Your task to perform on an android device: Go to privacy settings Image 0: 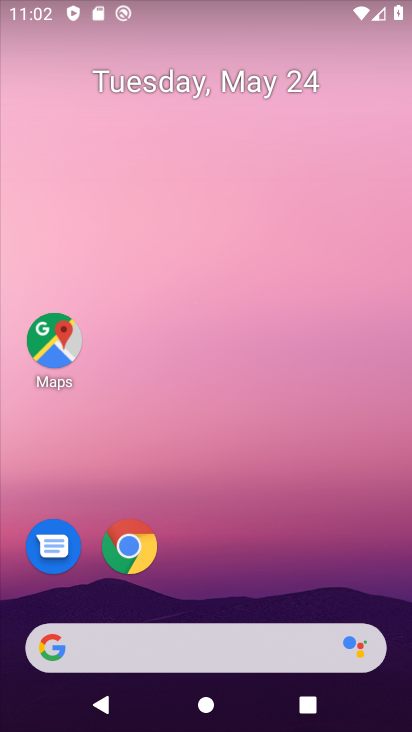
Step 0: drag from (272, 611) to (191, 170)
Your task to perform on an android device: Go to privacy settings Image 1: 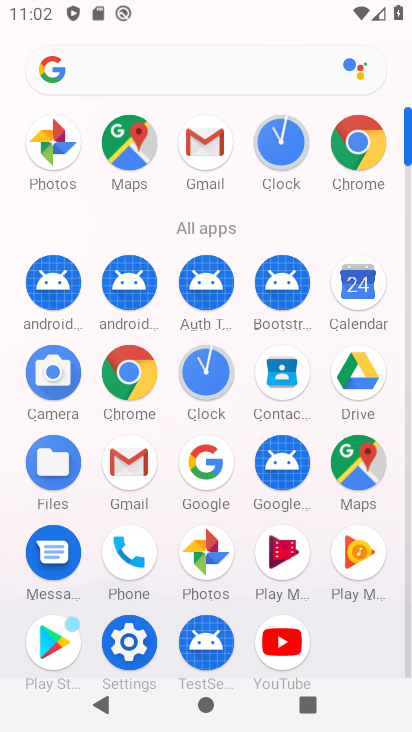
Step 1: click (354, 132)
Your task to perform on an android device: Go to privacy settings Image 2: 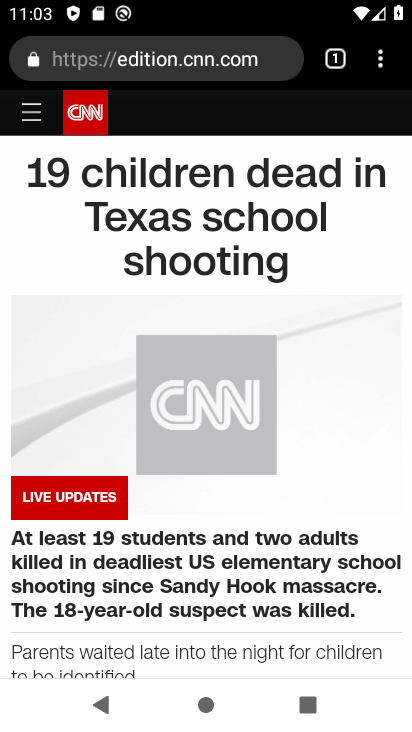
Step 2: click (384, 56)
Your task to perform on an android device: Go to privacy settings Image 3: 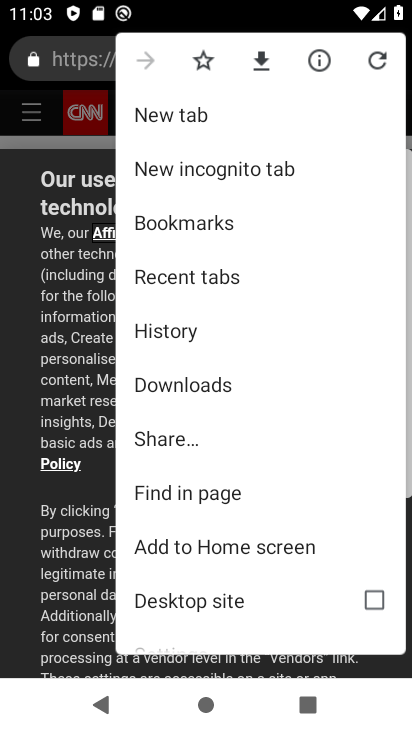
Step 3: drag from (247, 618) to (196, 222)
Your task to perform on an android device: Go to privacy settings Image 4: 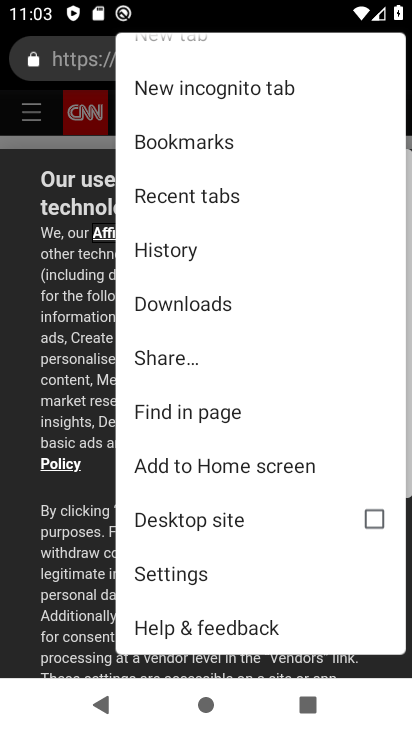
Step 4: click (203, 574)
Your task to perform on an android device: Go to privacy settings Image 5: 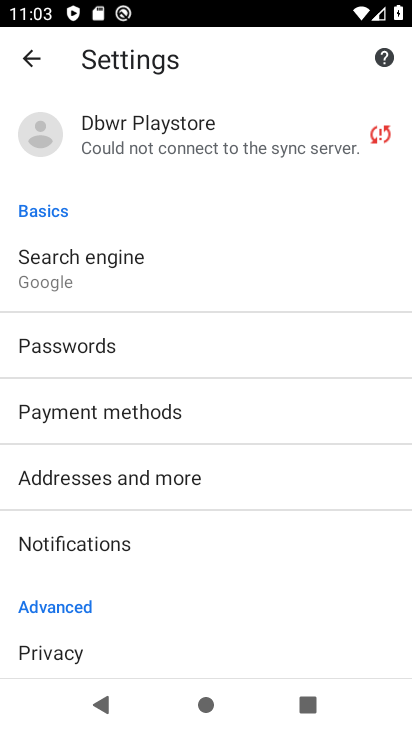
Step 5: click (146, 649)
Your task to perform on an android device: Go to privacy settings Image 6: 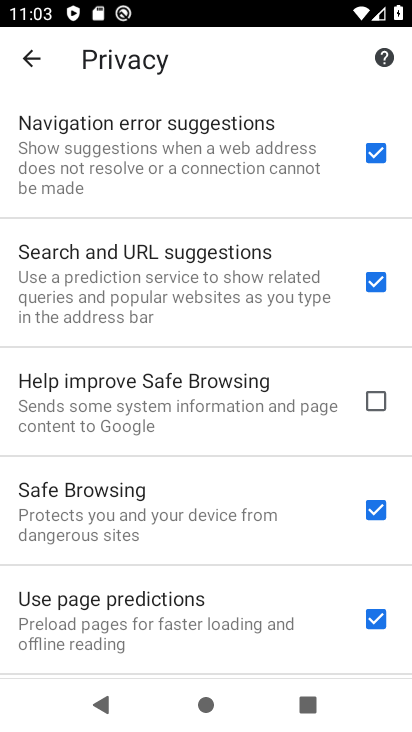
Step 6: task complete